Your task to perform on an android device: Open Maps and search for coffee Image 0: 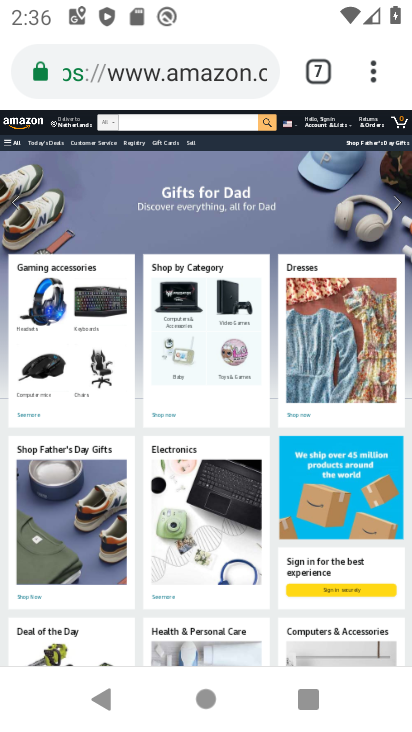
Step 0: press home button
Your task to perform on an android device: Open Maps and search for coffee Image 1: 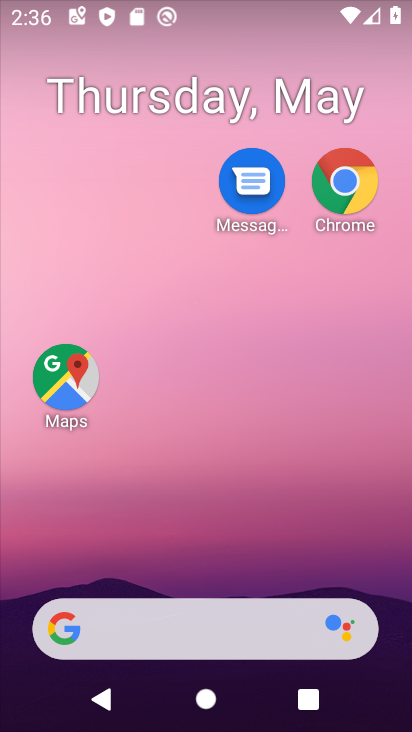
Step 1: drag from (215, 623) to (217, 15)
Your task to perform on an android device: Open Maps and search for coffee Image 2: 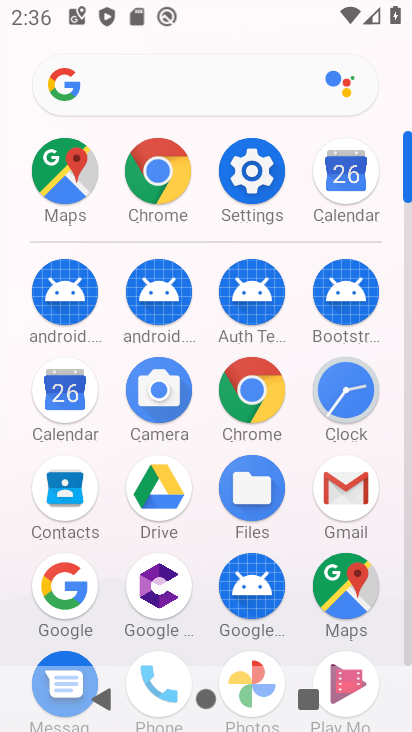
Step 2: click (347, 588)
Your task to perform on an android device: Open Maps and search for coffee Image 3: 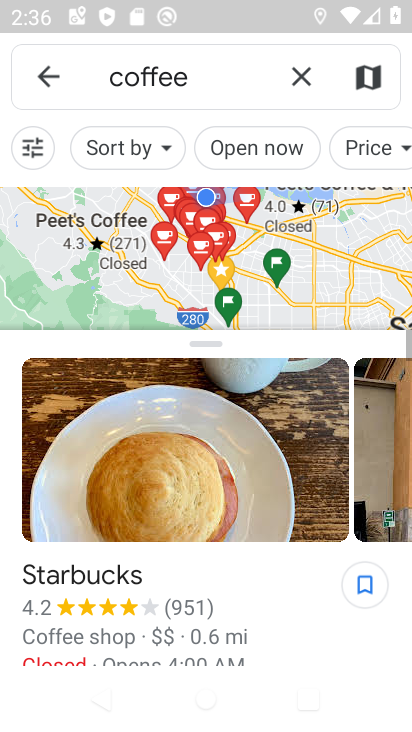
Step 3: task complete